Your task to perform on an android device: change the clock display to analog Image 0: 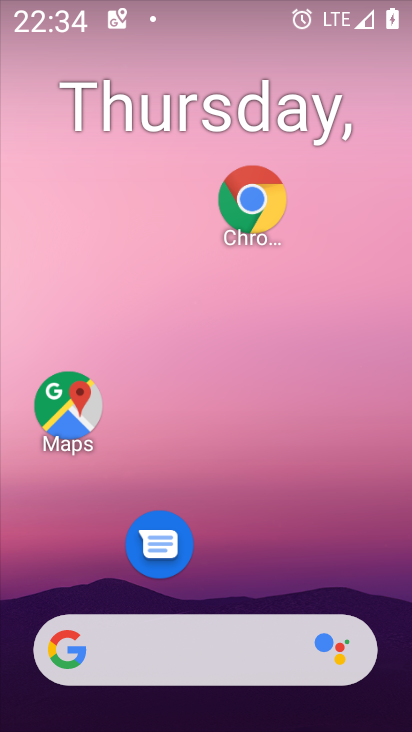
Step 0: drag from (275, 601) to (358, 142)
Your task to perform on an android device: change the clock display to analog Image 1: 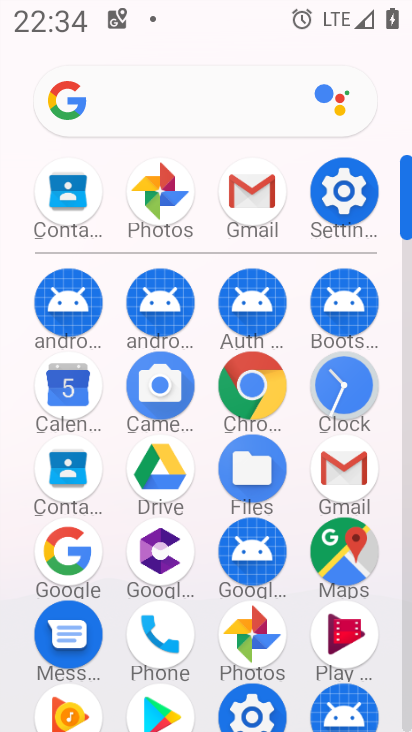
Step 1: click (346, 392)
Your task to perform on an android device: change the clock display to analog Image 2: 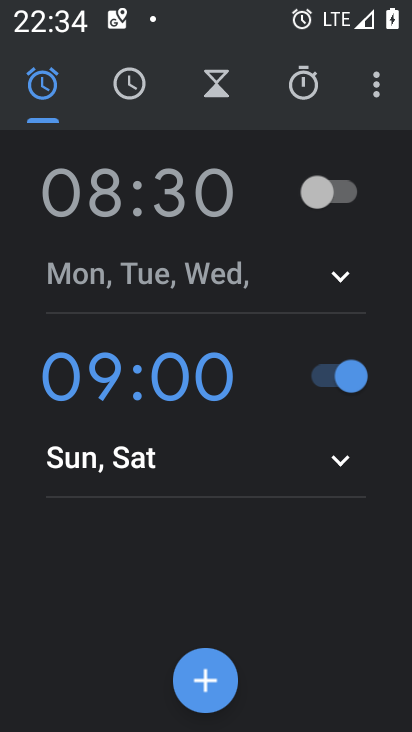
Step 2: click (361, 66)
Your task to perform on an android device: change the clock display to analog Image 3: 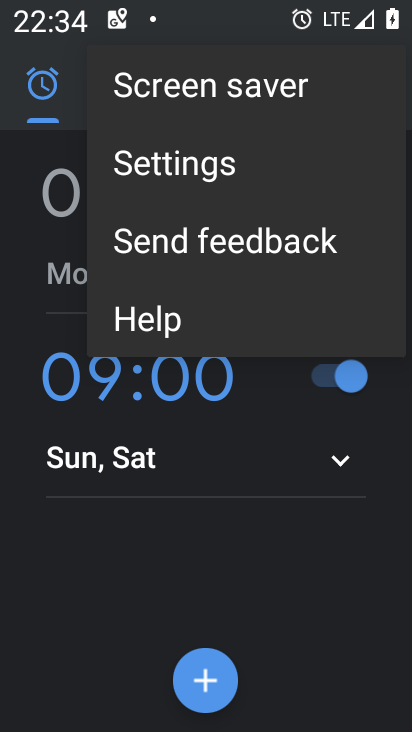
Step 3: click (242, 158)
Your task to perform on an android device: change the clock display to analog Image 4: 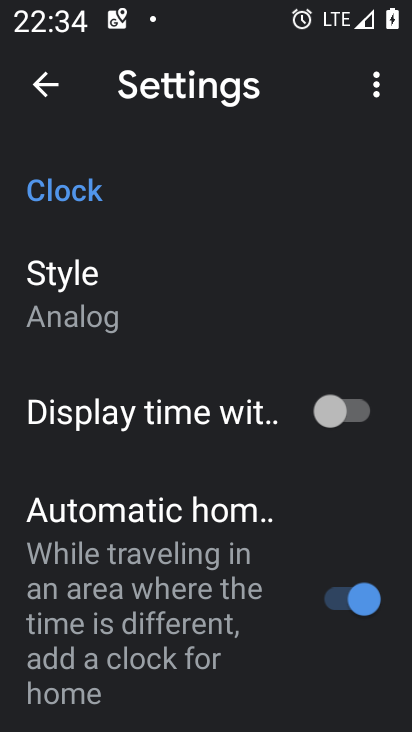
Step 4: click (124, 315)
Your task to perform on an android device: change the clock display to analog Image 5: 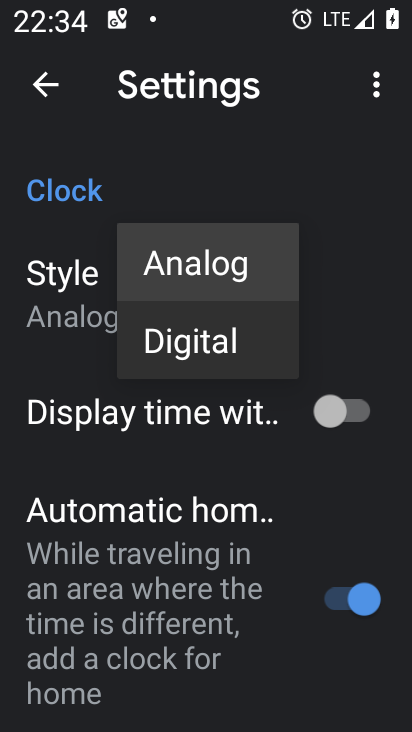
Step 5: click (222, 366)
Your task to perform on an android device: change the clock display to analog Image 6: 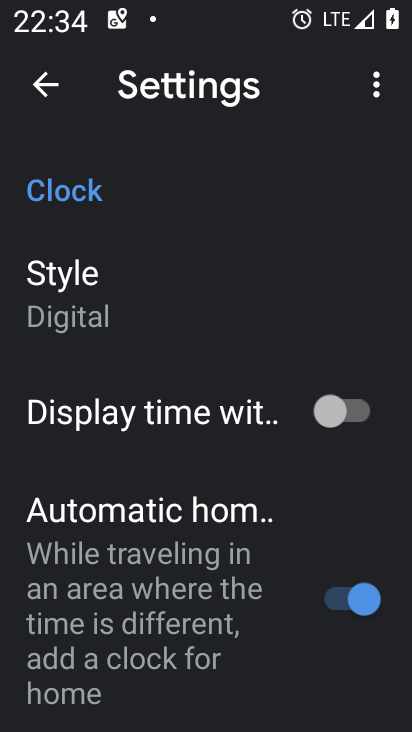
Step 6: task complete